Your task to perform on an android device: toggle javascript in the chrome app Image 0: 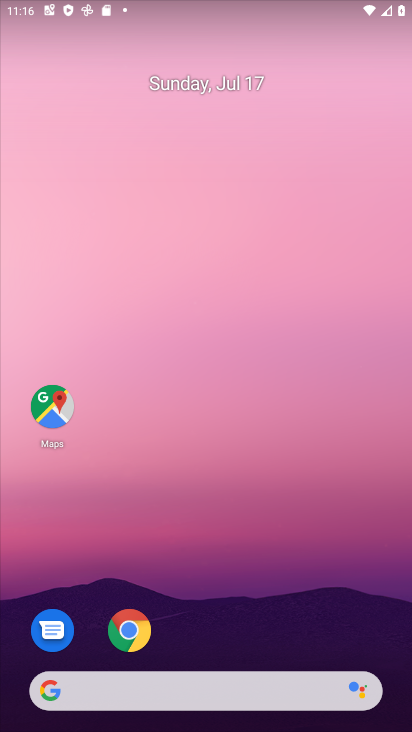
Step 0: click (137, 617)
Your task to perform on an android device: toggle javascript in the chrome app Image 1: 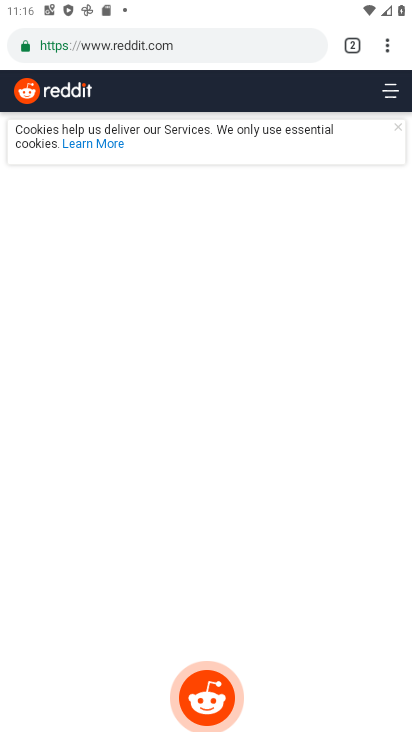
Step 1: click (385, 52)
Your task to perform on an android device: toggle javascript in the chrome app Image 2: 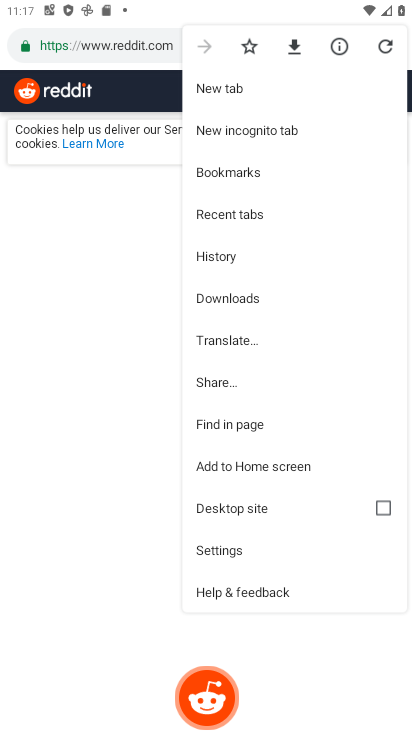
Step 2: click (246, 545)
Your task to perform on an android device: toggle javascript in the chrome app Image 3: 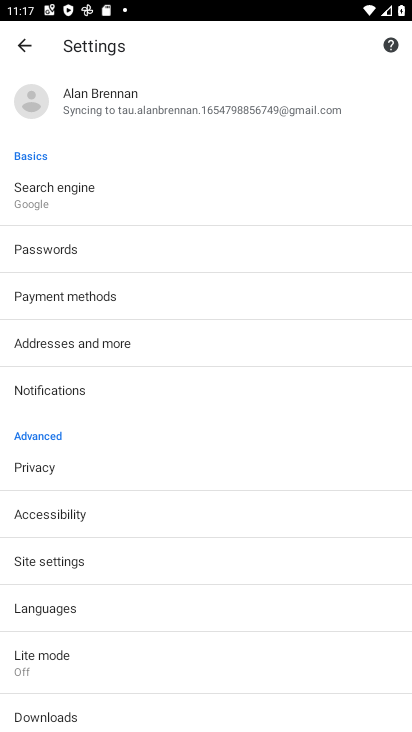
Step 3: click (152, 557)
Your task to perform on an android device: toggle javascript in the chrome app Image 4: 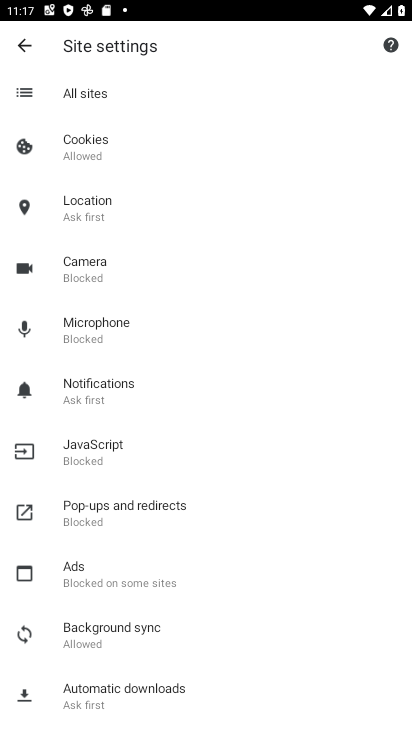
Step 4: click (193, 518)
Your task to perform on an android device: toggle javascript in the chrome app Image 5: 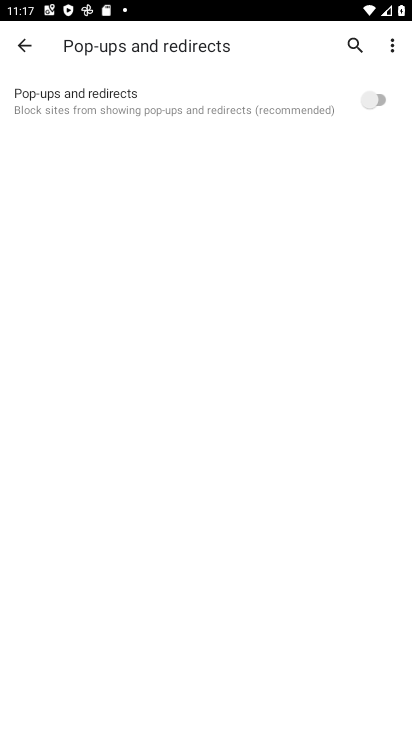
Step 5: click (26, 55)
Your task to perform on an android device: toggle javascript in the chrome app Image 6: 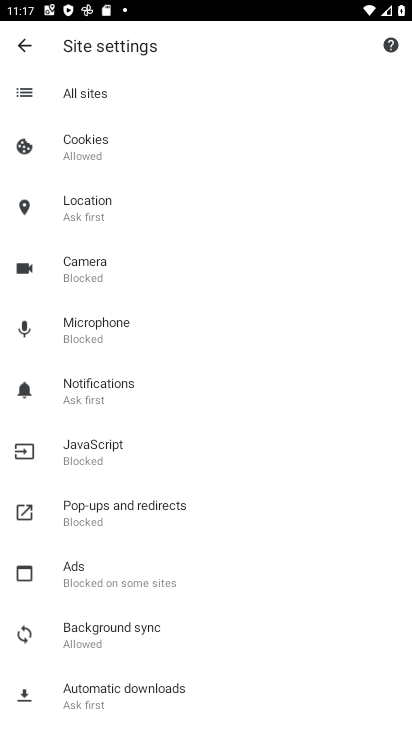
Step 6: click (134, 449)
Your task to perform on an android device: toggle javascript in the chrome app Image 7: 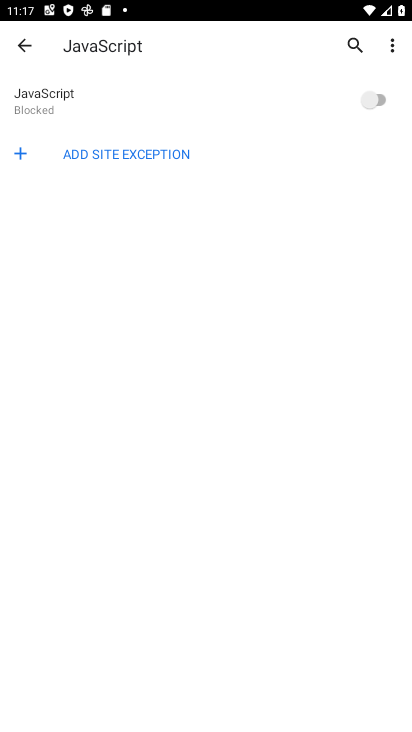
Step 7: click (370, 112)
Your task to perform on an android device: toggle javascript in the chrome app Image 8: 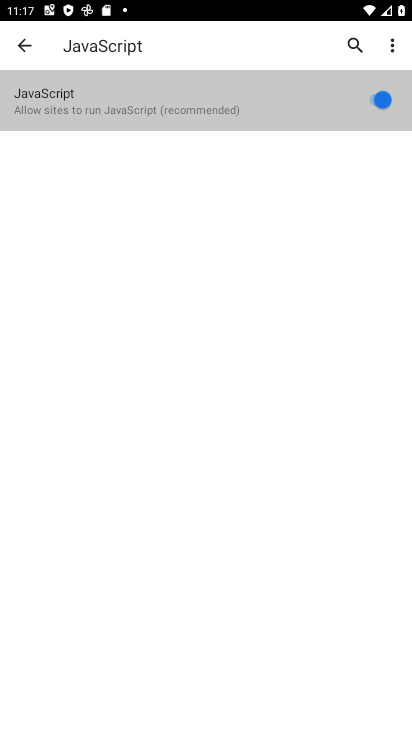
Step 8: task complete